Your task to perform on an android device: Open Youtube and go to "Your channel" Image 0: 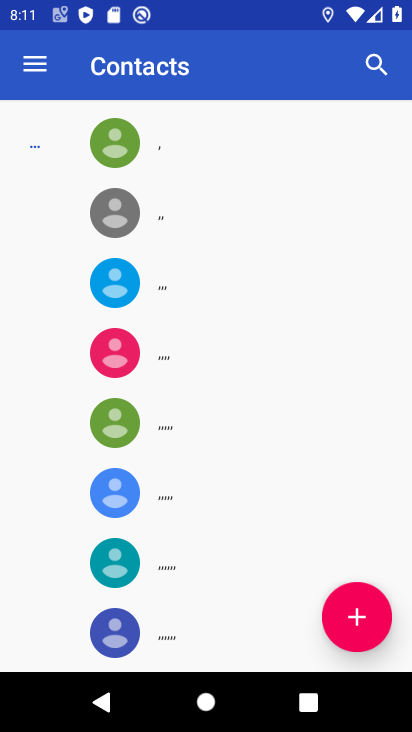
Step 0: press home button
Your task to perform on an android device: Open Youtube and go to "Your channel" Image 1: 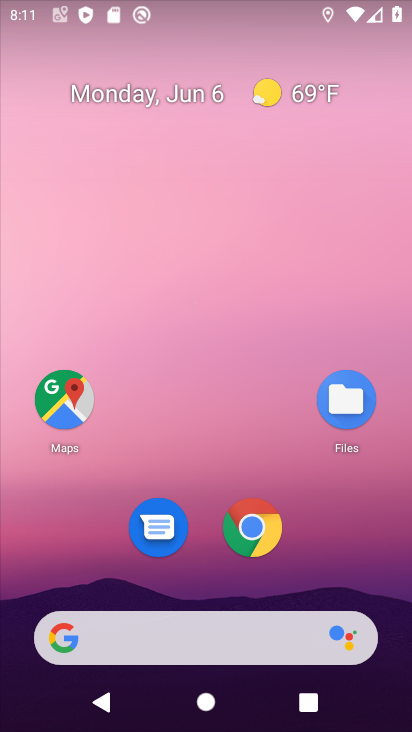
Step 1: drag from (297, 583) to (317, 7)
Your task to perform on an android device: Open Youtube and go to "Your channel" Image 2: 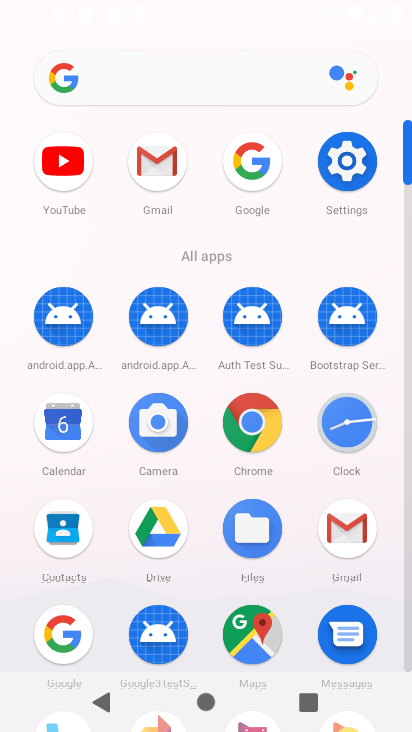
Step 2: click (68, 154)
Your task to perform on an android device: Open Youtube and go to "Your channel" Image 3: 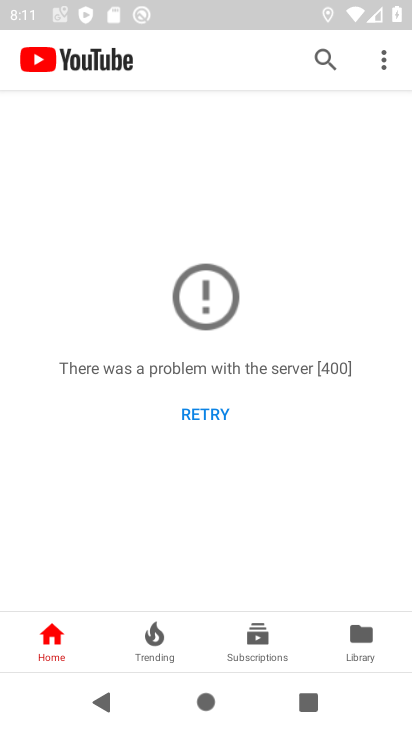
Step 3: click (373, 46)
Your task to perform on an android device: Open Youtube and go to "Your channel" Image 4: 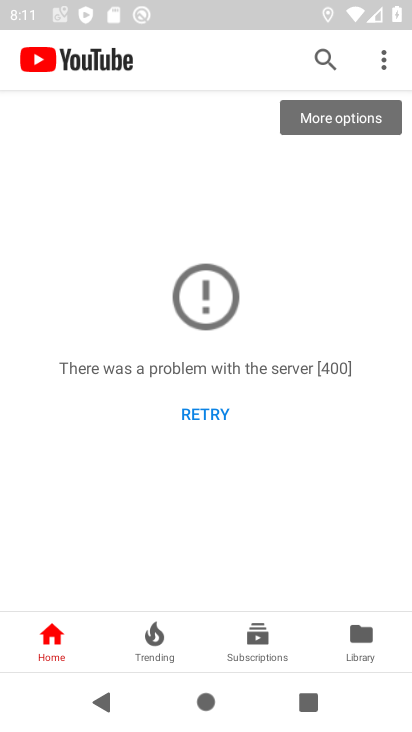
Step 4: click (376, 61)
Your task to perform on an android device: Open Youtube and go to "Your channel" Image 5: 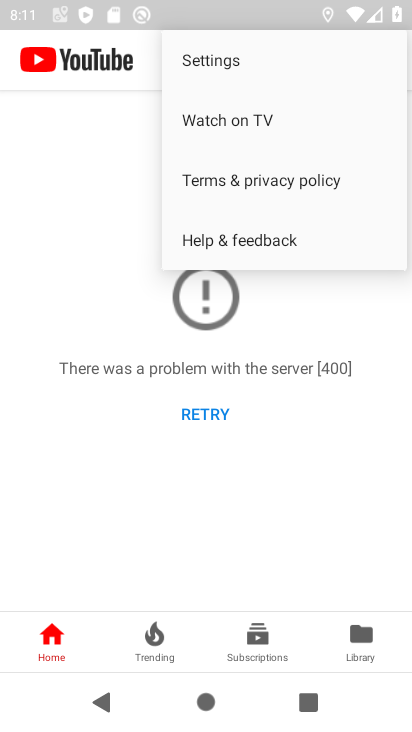
Step 5: click (307, 499)
Your task to perform on an android device: Open Youtube and go to "Your channel" Image 6: 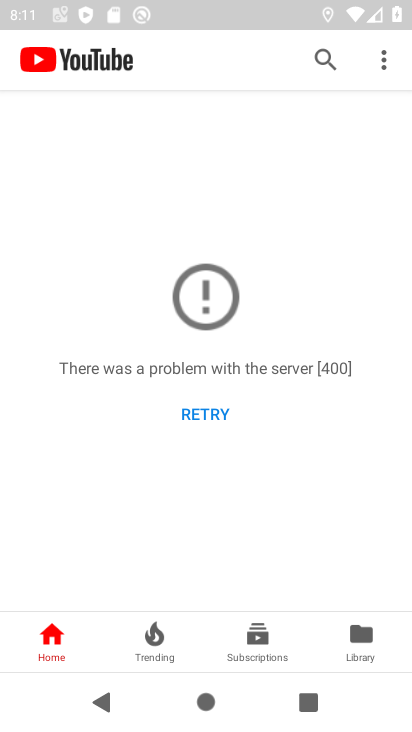
Step 6: task complete